Your task to perform on an android device: Go to settings Image 0: 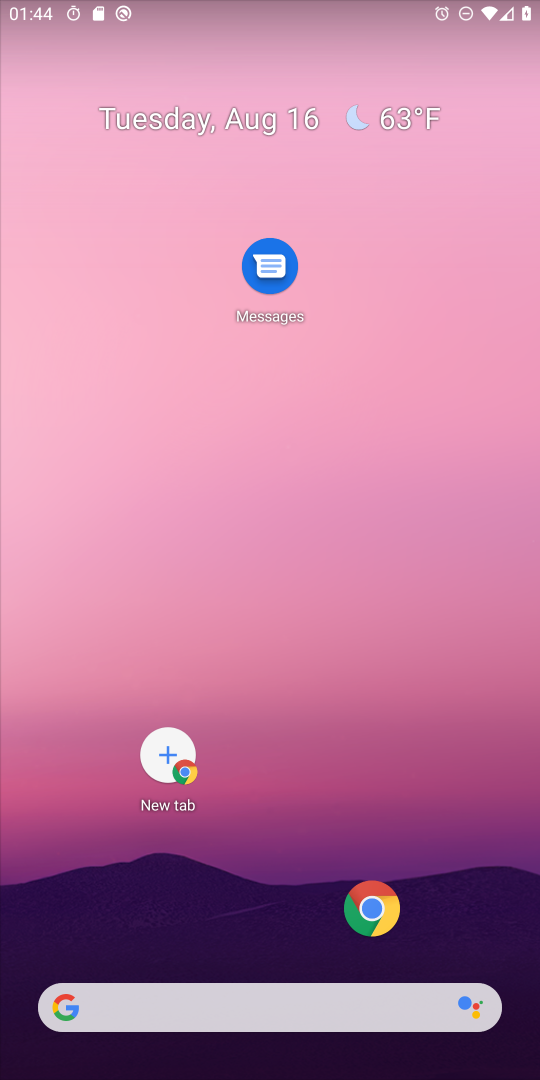
Step 0: drag from (218, 919) to (197, 208)
Your task to perform on an android device: Go to settings Image 1: 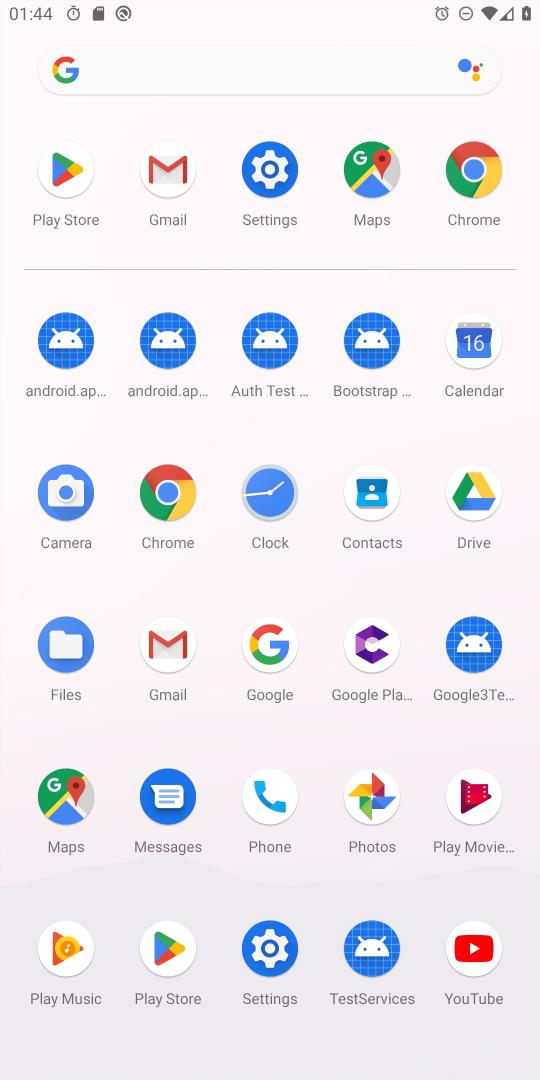
Step 1: click (248, 245)
Your task to perform on an android device: Go to settings Image 2: 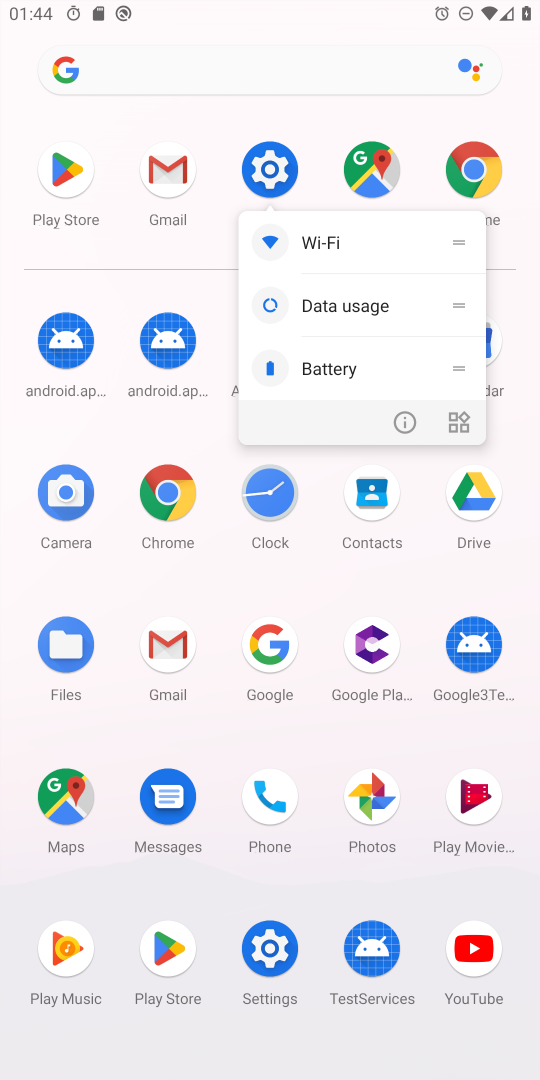
Step 2: click (256, 209)
Your task to perform on an android device: Go to settings Image 3: 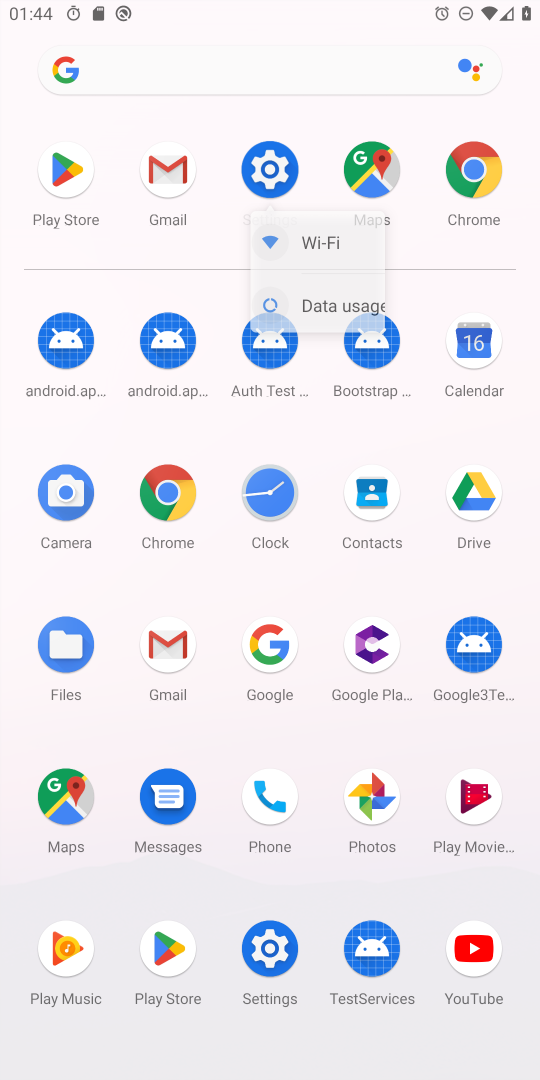
Step 3: click (258, 180)
Your task to perform on an android device: Go to settings Image 4: 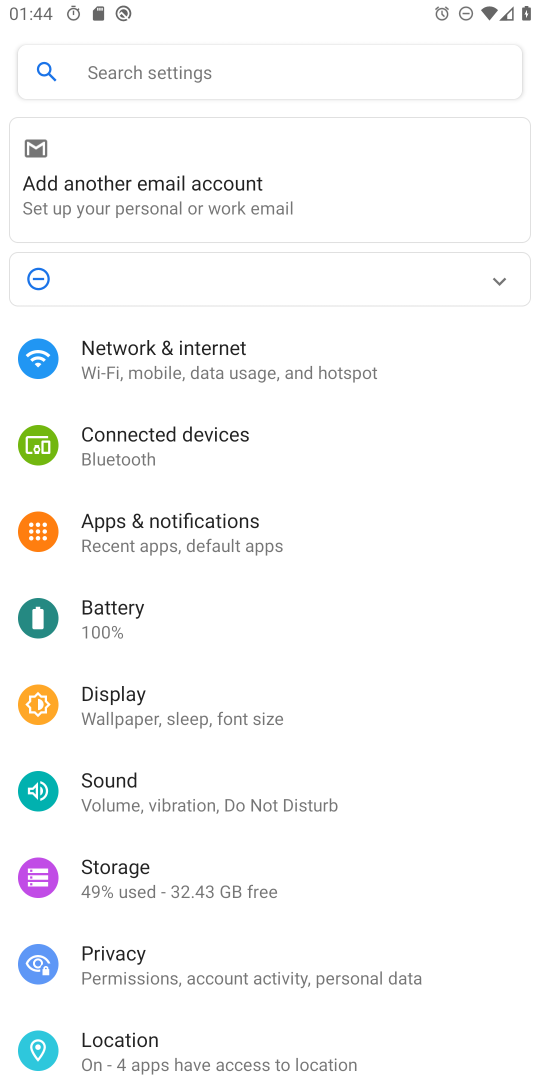
Step 4: task complete